Your task to perform on an android device: turn off notifications in google photos Image 0: 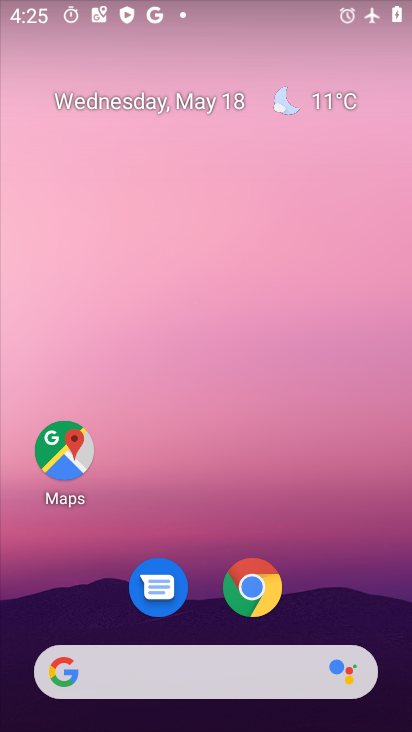
Step 0: drag from (211, 579) to (279, 31)
Your task to perform on an android device: turn off notifications in google photos Image 1: 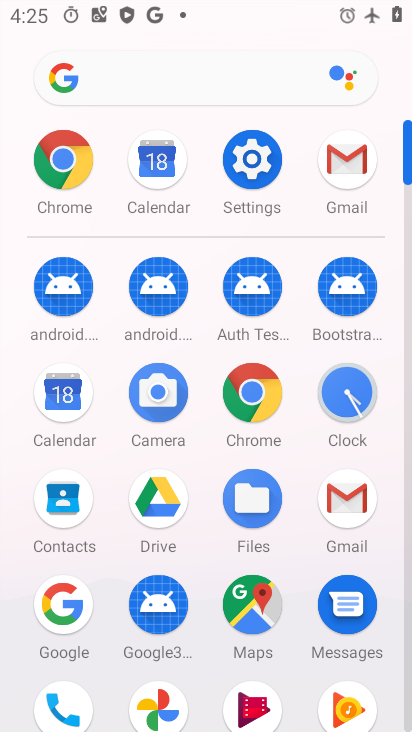
Step 1: click (162, 701)
Your task to perform on an android device: turn off notifications in google photos Image 2: 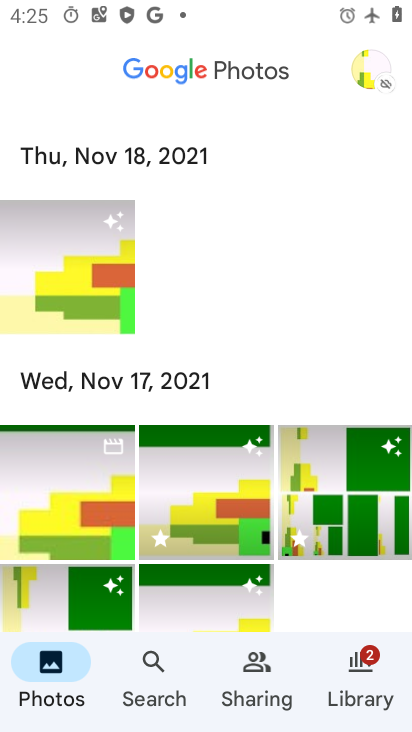
Step 2: click (382, 69)
Your task to perform on an android device: turn off notifications in google photos Image 3: 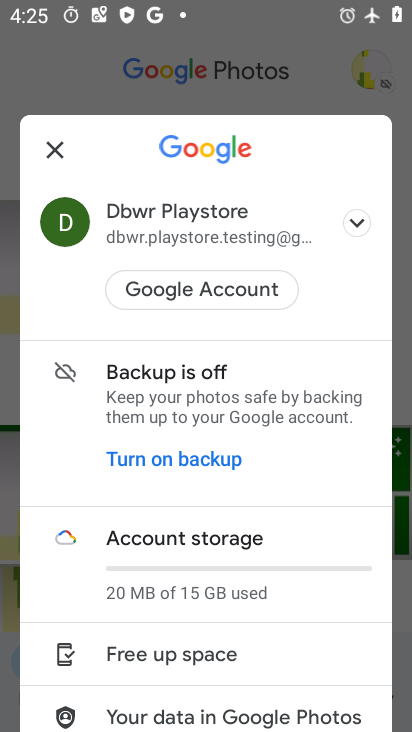
Step 3: drag from (270, 661) to (229, 262)
Your task to perform on an android device: turn off notifications in google photos Image 4: 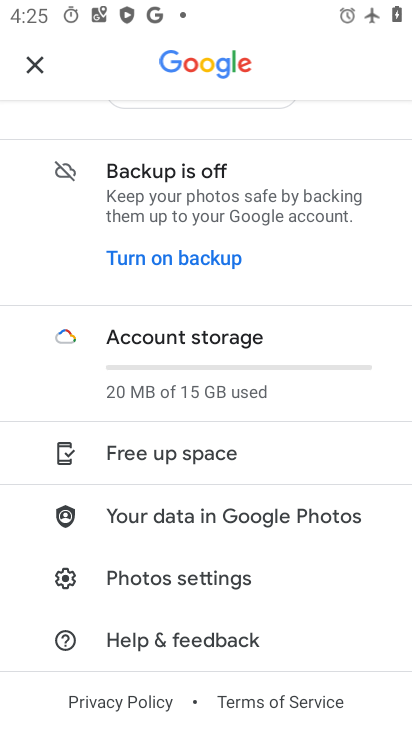
Step 4: click (207, 579)
Your task to perform on an android device: turn off notifications in google photos Image 5: 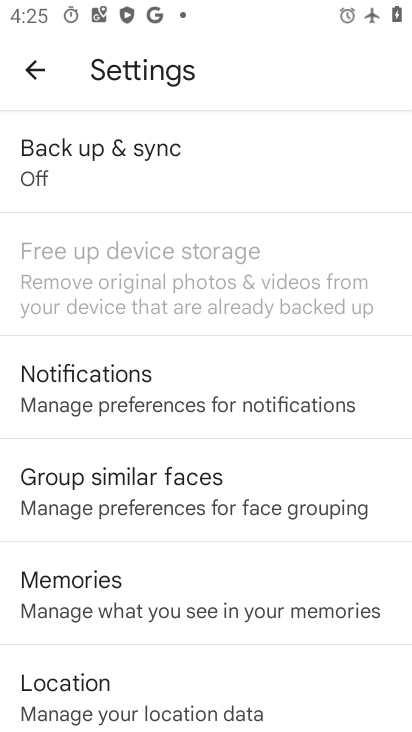
Step 5: click (199, 403)
Your task to perform on an android device: turn off notifications in google photos Image 6: 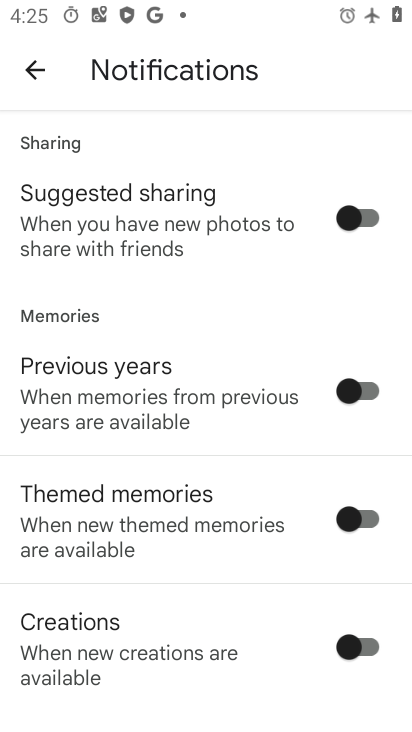
Step 6: task complete